Your task to perform on an android device: clear history in the chrome app Image 0: 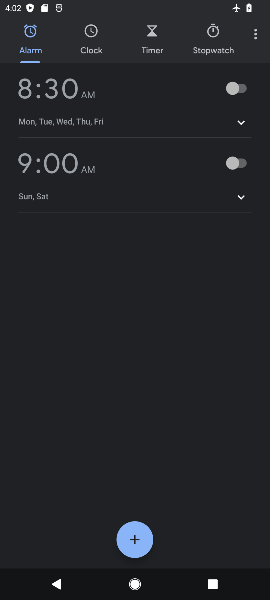
Step 0: press home button
Your task to perform on an android device: clear history in the chrome app Image 1: 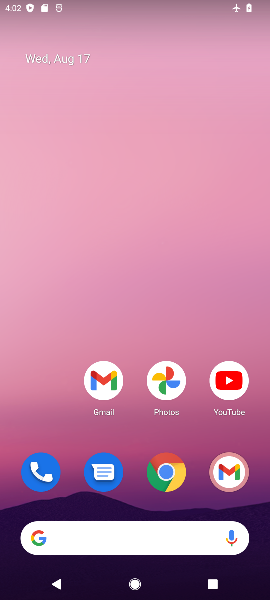
Step 1: click (164, 463)
Your task to perform on an android device: clear history in the chrome app Image 2: 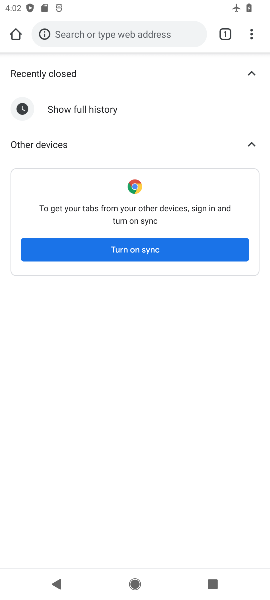
Step 2: click (253, 29)
Your task to perform on an android device: clear history in the chrome app Image 3: 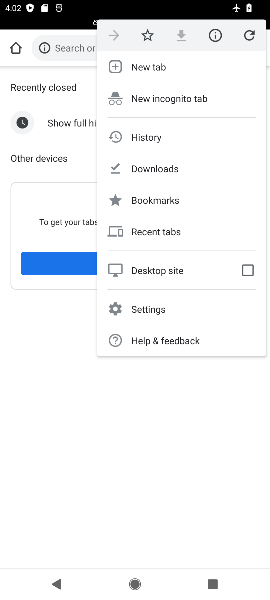
Step 3: click (147, 130)
Your task to perform on an android device: clear history in the chrome app Image 4: 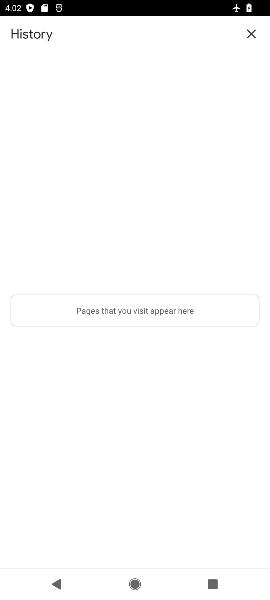
Step 4: task complete